Your task to perform on an android device: Search for Italian restaurants on Maps Image 0: 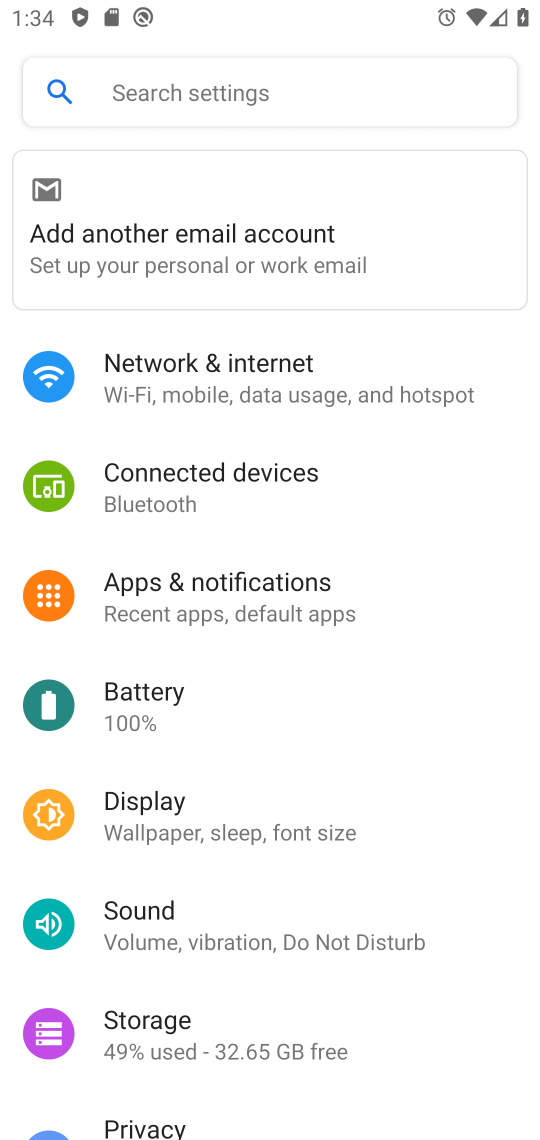
Step 0: drag from (280, 916) to (315, 390)
Your task to perform on an android device: Search for Italian restaurants on Maps Image 1: 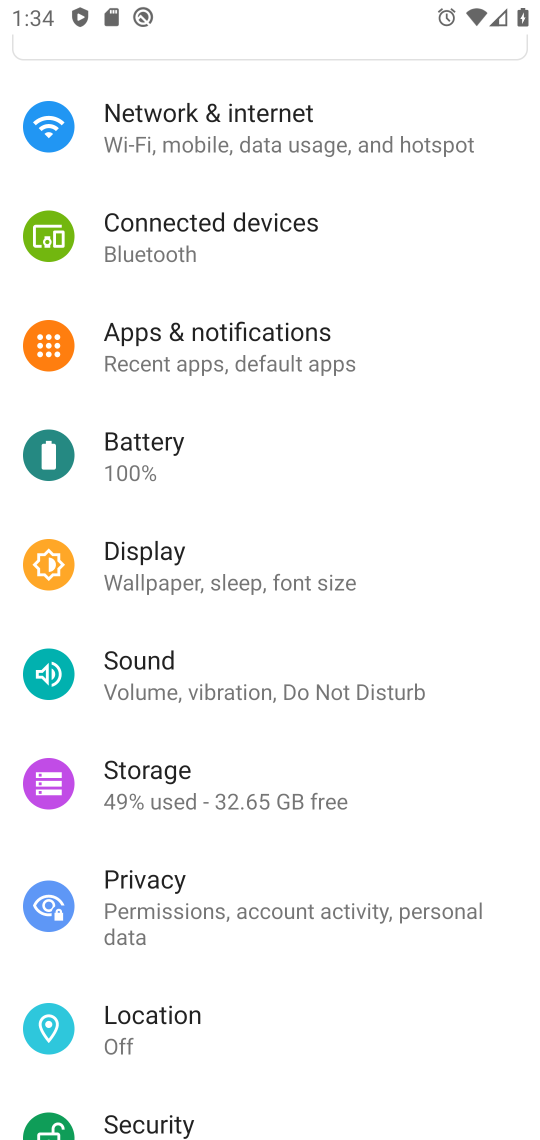
Step 1: press home button
Your task to perform on an android device: Search for Italian restaurants on Maps Image 2: 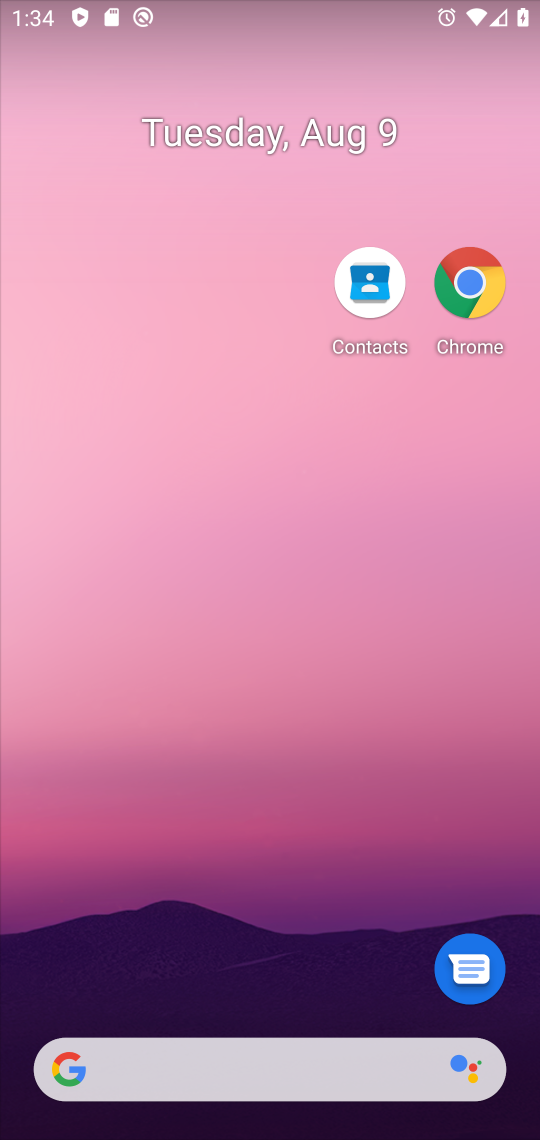
Step 2: drag from (250, 978) to (411, 205)
Your task to perform on an android device: Search for Italian restaurants on Maps Image 3: 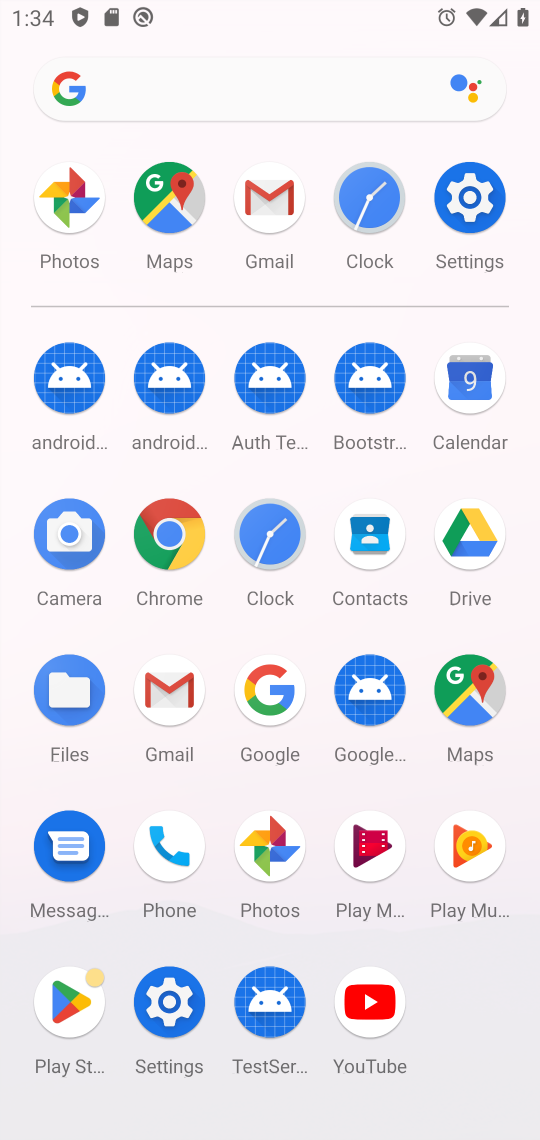
Step 3: click (460, 707)
Your task to perform on an android device: Search for Italian restaurants on Maps Image 4: 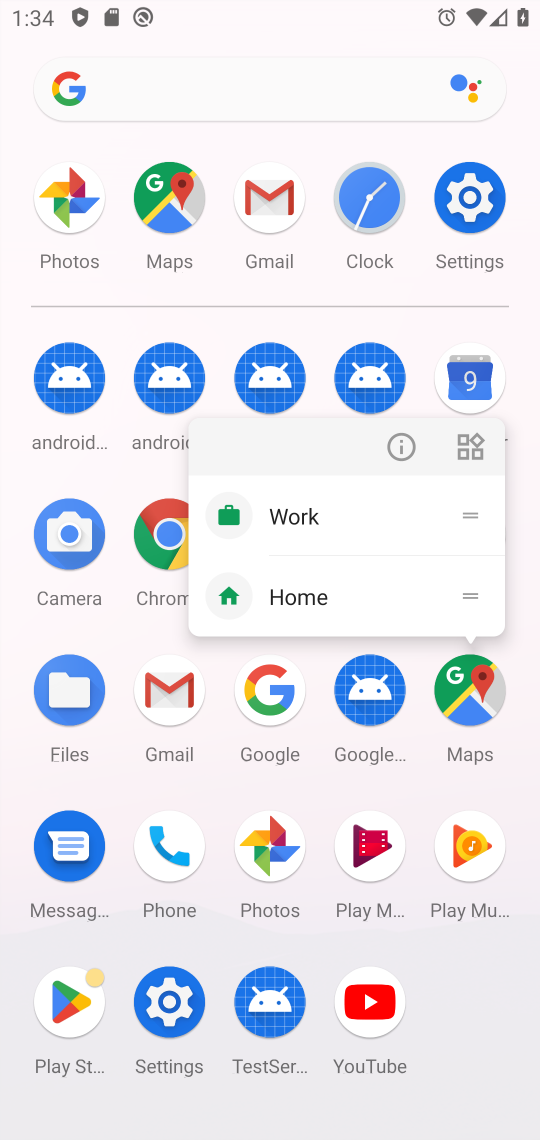
Step 4: click (395, 436)
Your task to perform on an android device: Search for Italian restaurants on Maps Image 5: 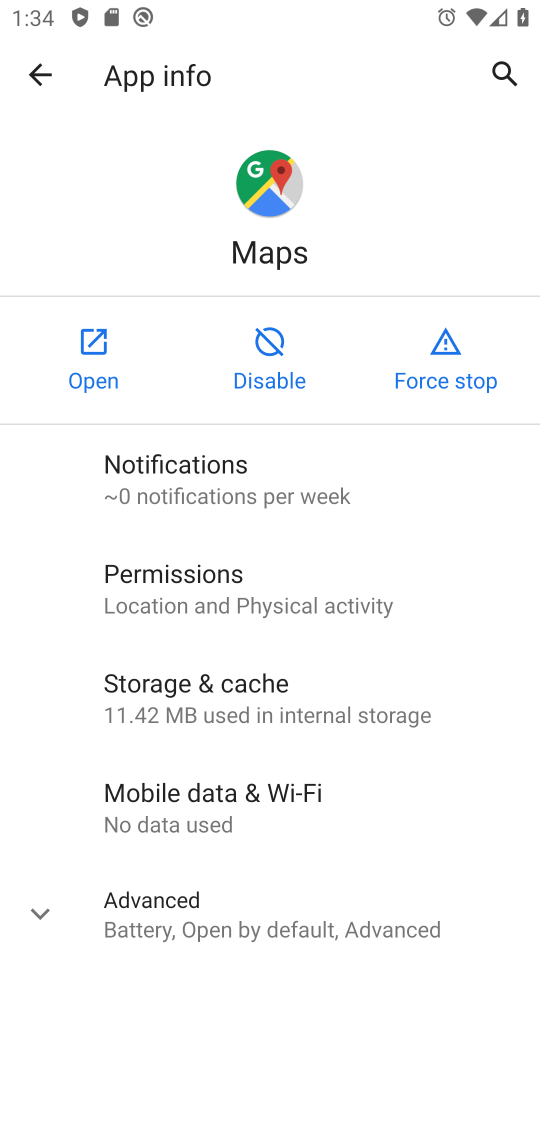
Step 5: click (88, 344)
Your task to perform on an android device: Search for Italian restaurants on Maps Image 6: 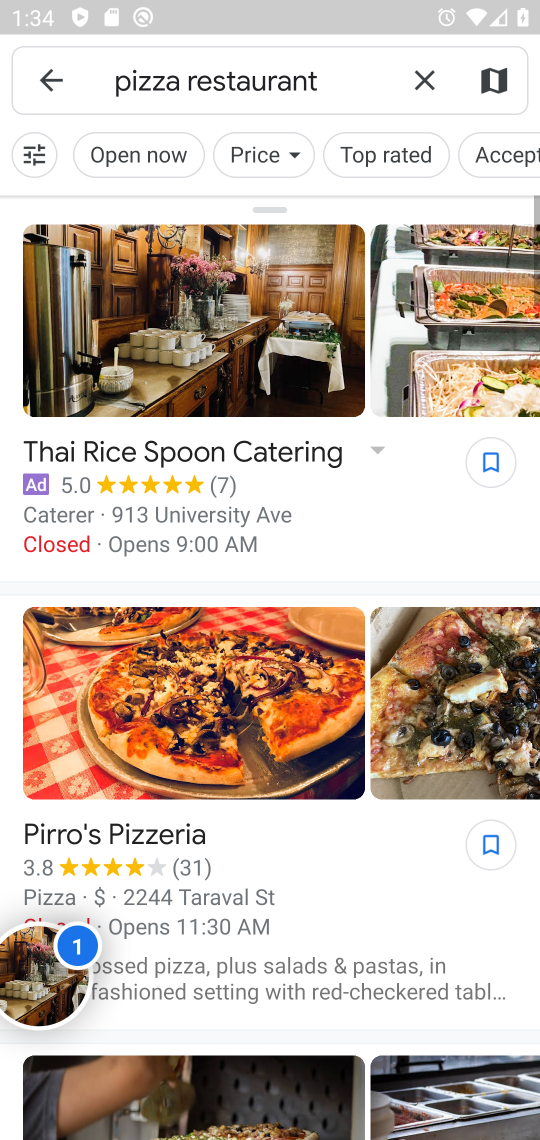
Step 6: click (417, 70)
Your task to perform on an android device: Search for Italian restaurants on Maps Image 7: 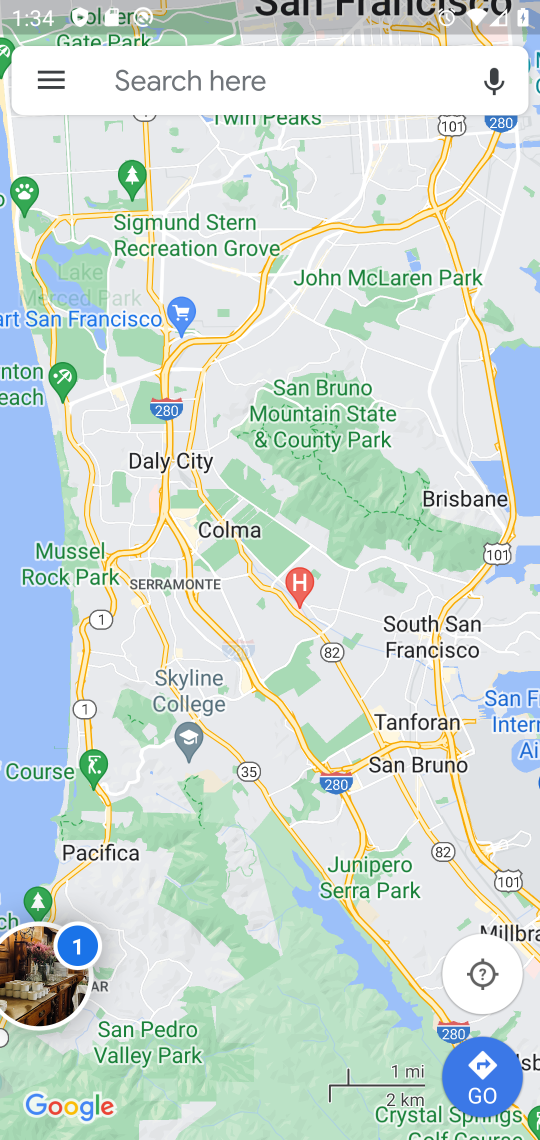
Step 7: click (249, 107)
Your task to perform on an android device: Search for Italian restaurants on Maps Image 8: 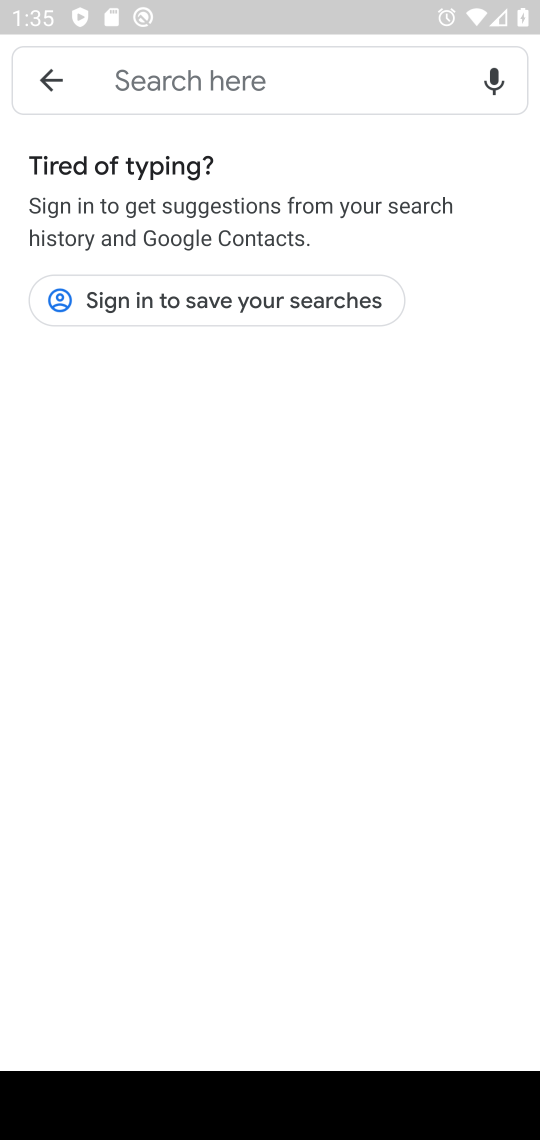
Step 8: click (160, 98)
Your task to perform on an android device: Search for Italian restaurants on Maps Image 9: 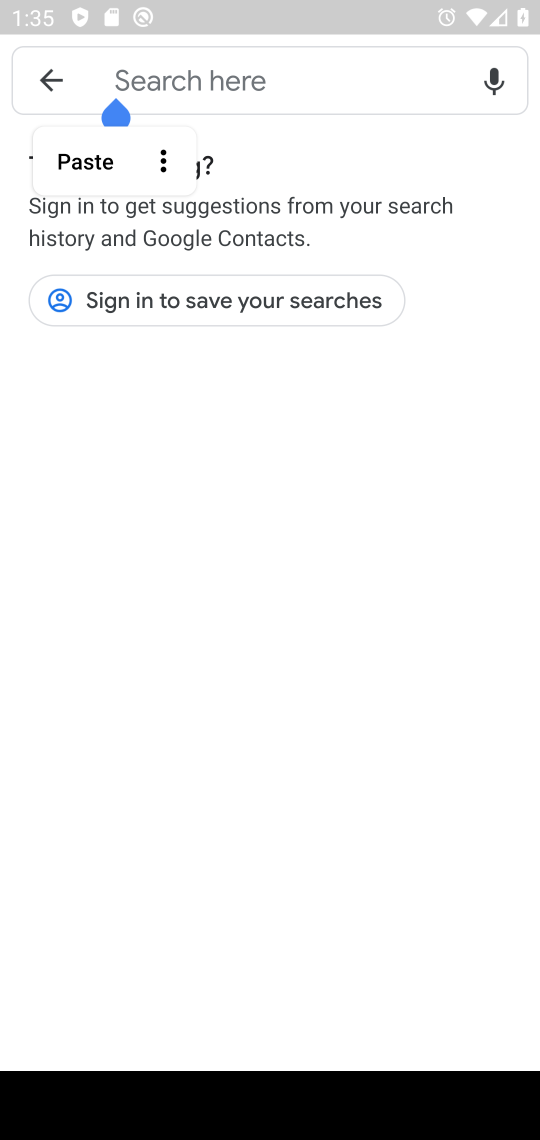
Step 9: type "Italian restaurants"
Your task to perform on an android device: Search for Italian restaurants on Maps Image 10: 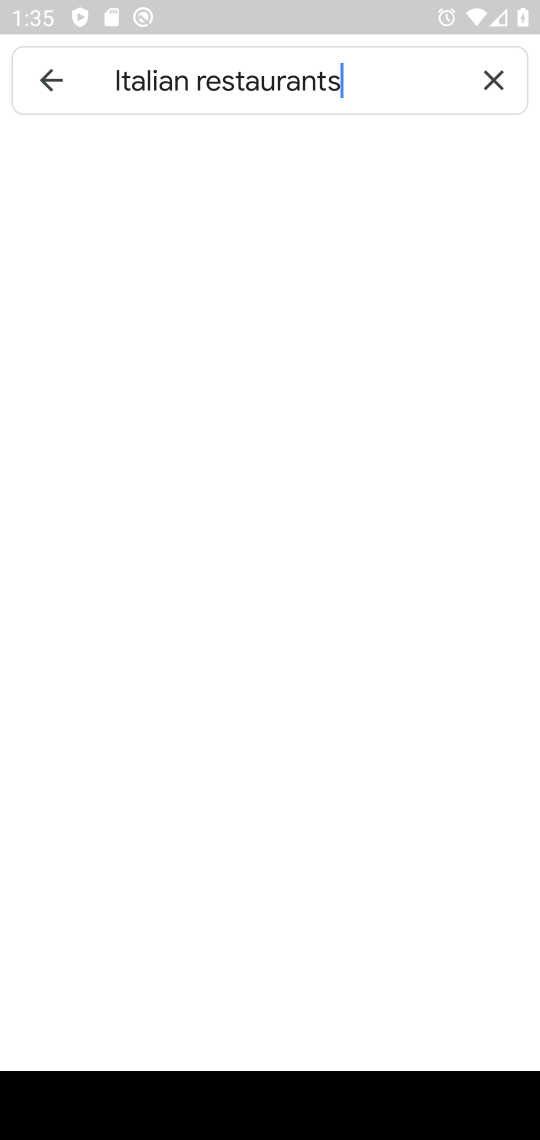
Step 10: type ""
Your task to perform on an android device: Search for Italian restaurants on Maps Image 11: 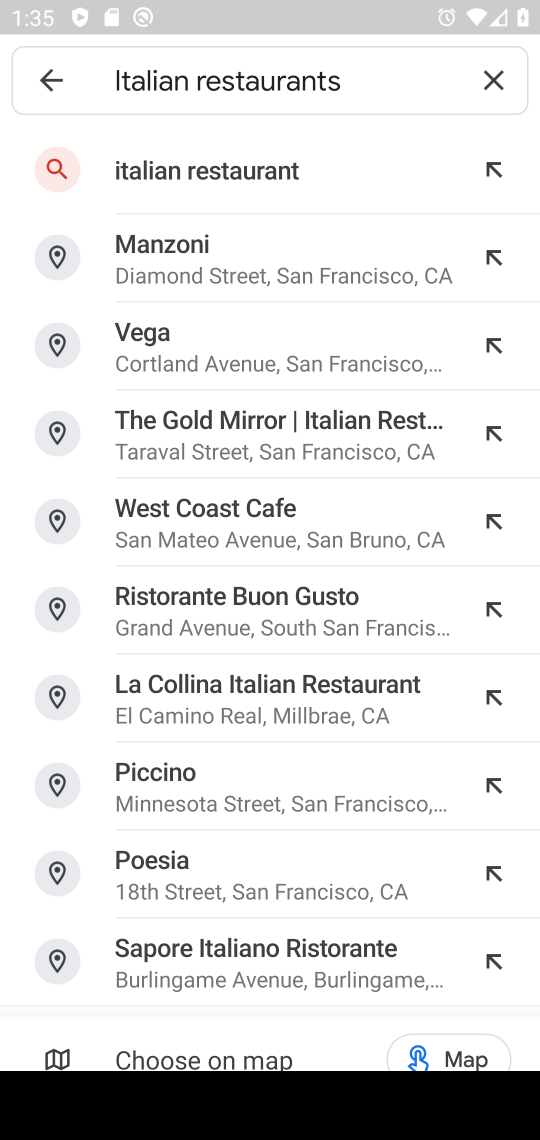
Step 11: click (171, 177)
Your task to perform on an android device: Search for Italian restaurants on Maps Image 12: 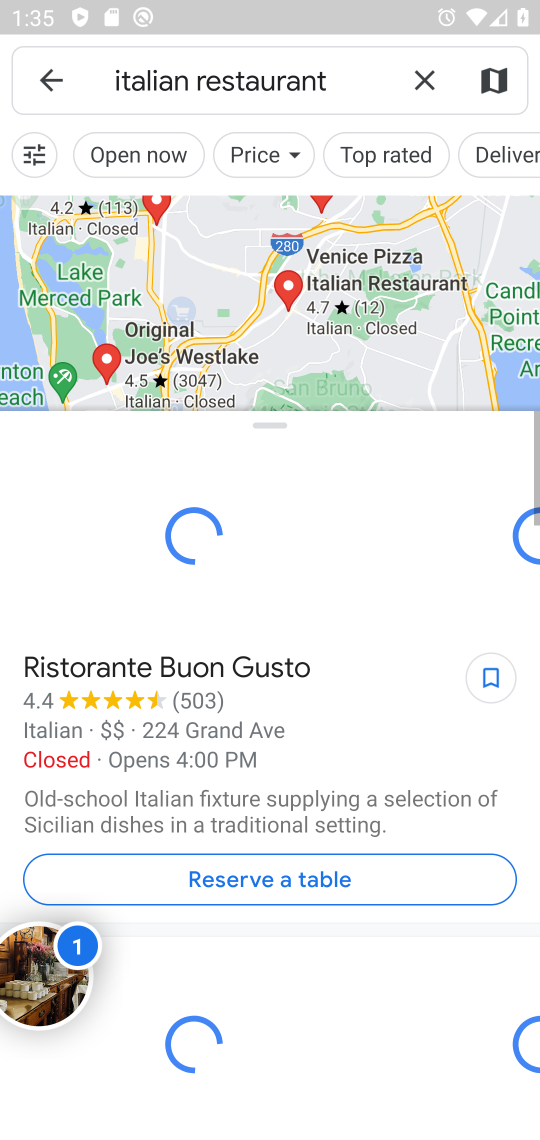
Step 12: task complete